Your task to perform on an android device: change timer sound Image 0: 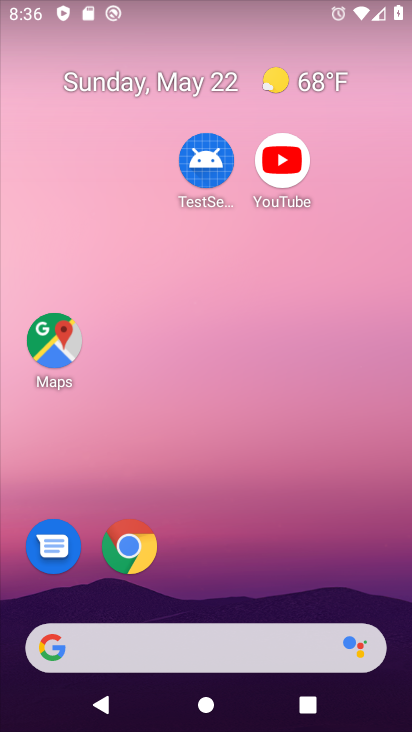
Step 0: drag from (277, 444) to (288, 76)
Your task to perform on an android device: change timer sound Image 1: 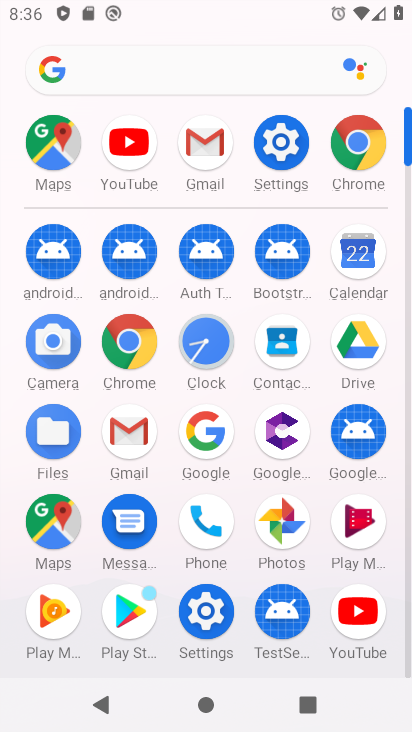
Step 1: click (213, 340)
Your task to perform on an android device: change timer sound Image 2: 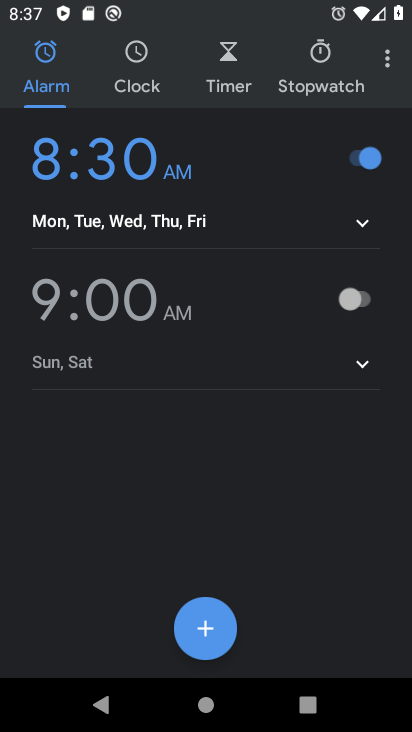
Step 2: click (382, 62)
Your task to perform on an android device: change timer sound Image 3: 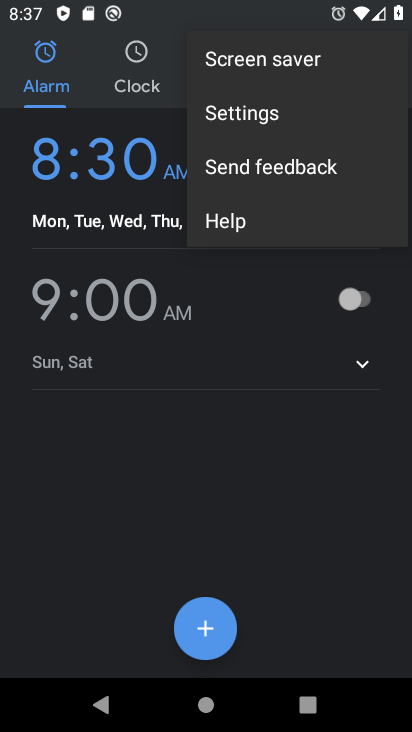
Step 3: click (261, 110)
Your task to perform on an android device: change timer sound Image 4: 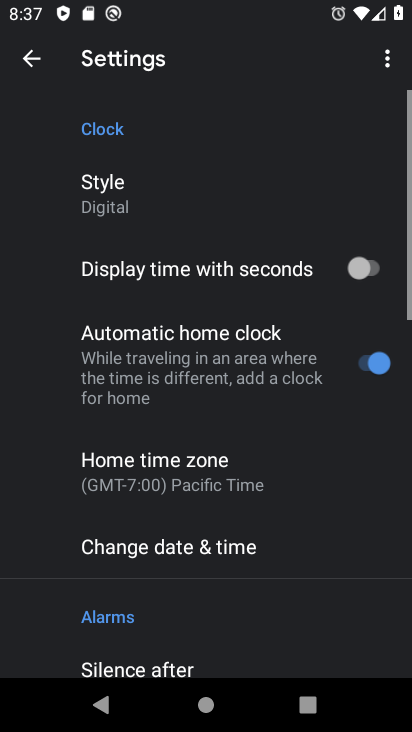
Step 4: drag from (201, 550) to (246, 125)
Your task to perform on an android device: change timer sound Image 5: 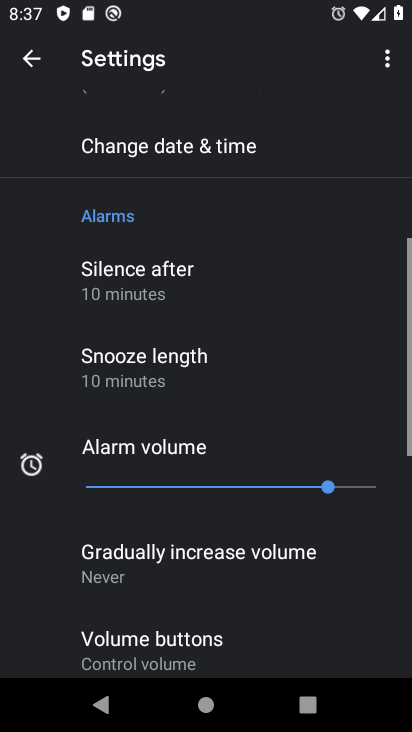
Step 5: drag from (221, 471) to (249, 228)
Your task to perform on an android device: change timer sound Image 6: 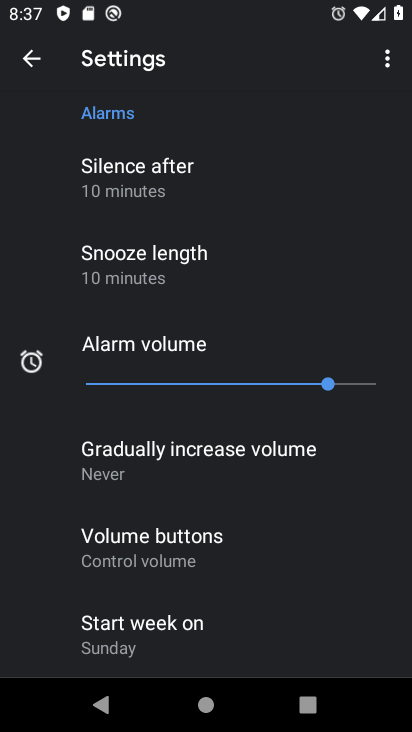
Step 6: drag from (171, 523) to (101, 213)
Your task to perform on an android device: change timer sound Image 7: 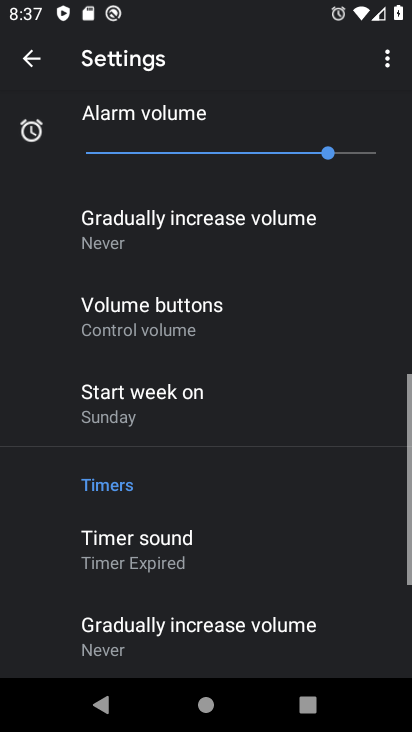
Step 7: drag from (123, 467) to (146, 198)
Your task to perform on an android device: change timer sound Image 8: 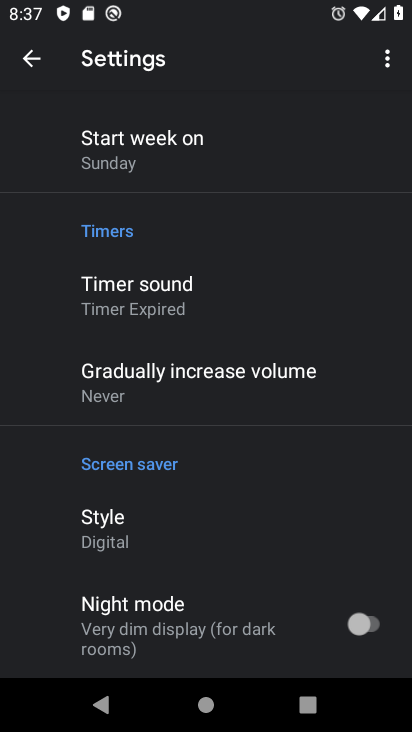
Step 8: click (143, 314)
Your task to perform on an android device: change timer sound Image 9: 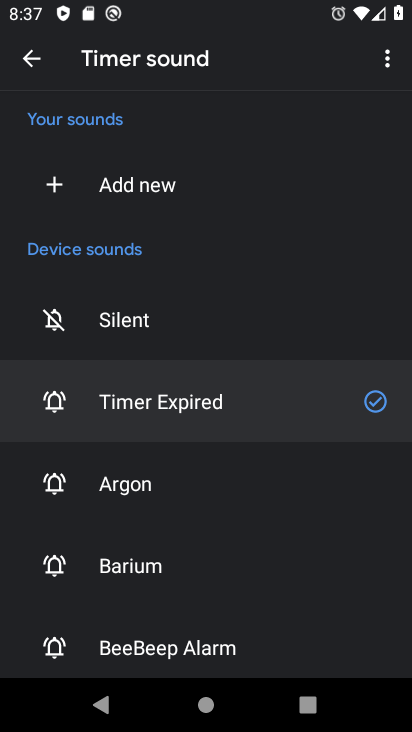
Step 9: click (54, 554)
Your task to perform on an android device: change timer sound Image 10: 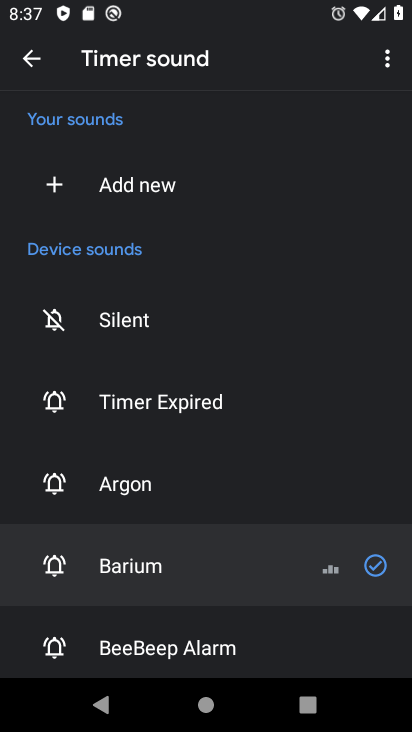
Step 10: task complete